Your task to perform on an android device: open the mobile data screen to see how much data has been used Image 0: 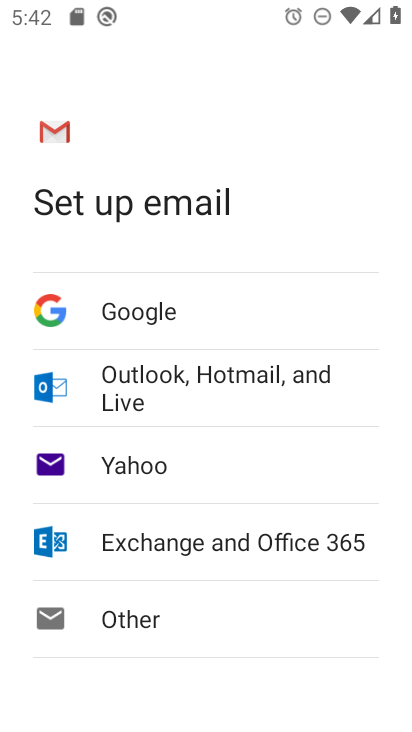
Step 0: press home button
Your task to perform on an android device: open the mobile data screen to see how much data has been used Image 1: 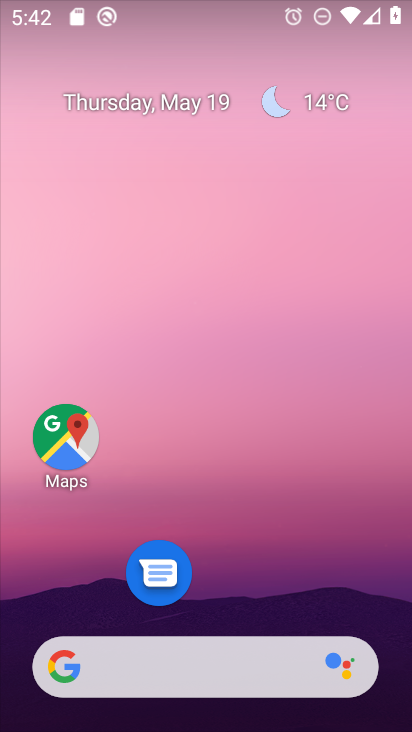
Step 1: click (259, 235)
Your task to perform on an android device: open the mobile data screen to see how much data has been used Image 2: 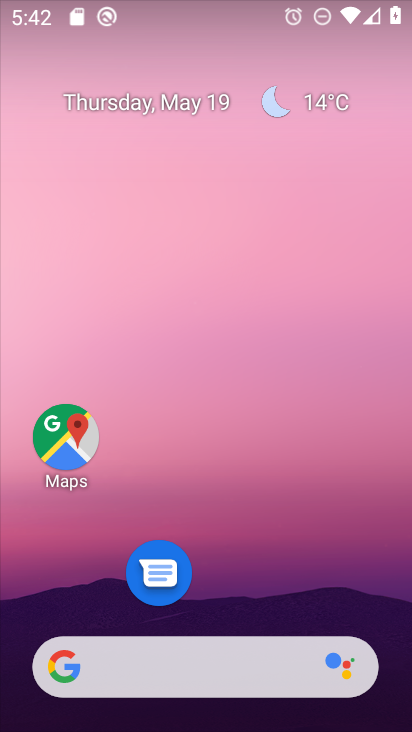
Step 2: drag from (234, 596) to (288, 66)
Your task to perform on an android device: open the mobile data screen to see how much data has been used Image 3: 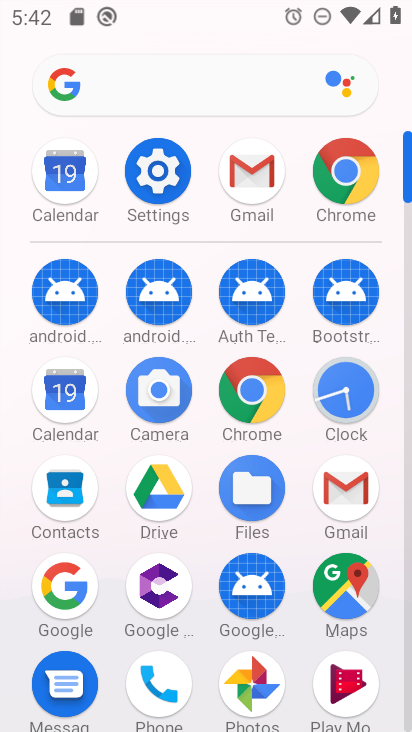
Step 3: click (164, 185)
Your task to perform on an android device: open the mobile data screen to see how much data has been used Image 4: 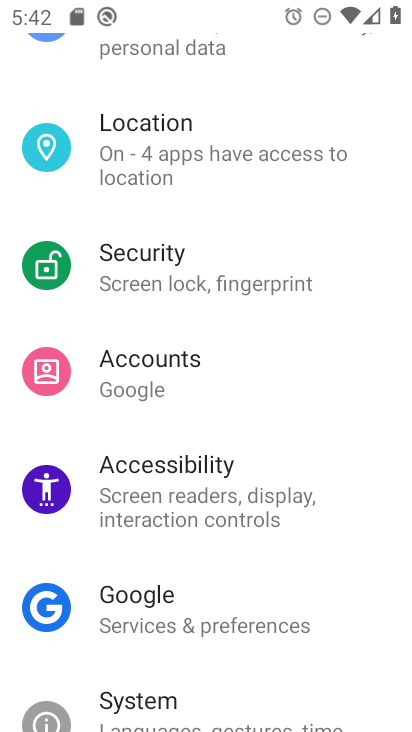
Step 4: drag from (181, 154) to (163, 450)
Your task to perform on an android device: open the mobile data screen to see how much data has been used Image 5: 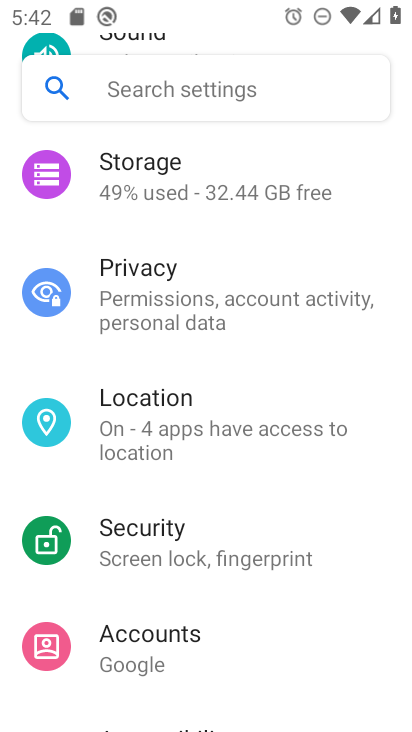
Step 5: drag from (187, 276) to (169, 580)
Your task to perform on an android device: open the mobile data screen to see how much data has been used Image 6: 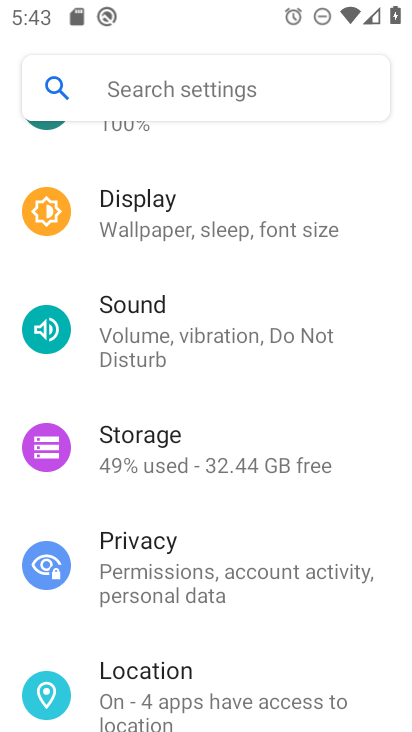
Step 6: drag from (190, 308) to (178, 551)
Your task to perform on an android device: open the mobile data screen to see how much data has been used Image 7: 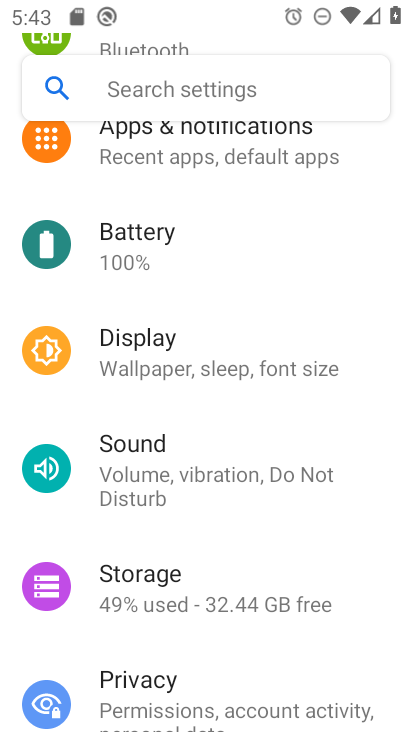
Step 7: drag from (191, 229) to (192, 589)
Your task to perform on an android device: open the mobile data screen to see how much data has been used Image 8: 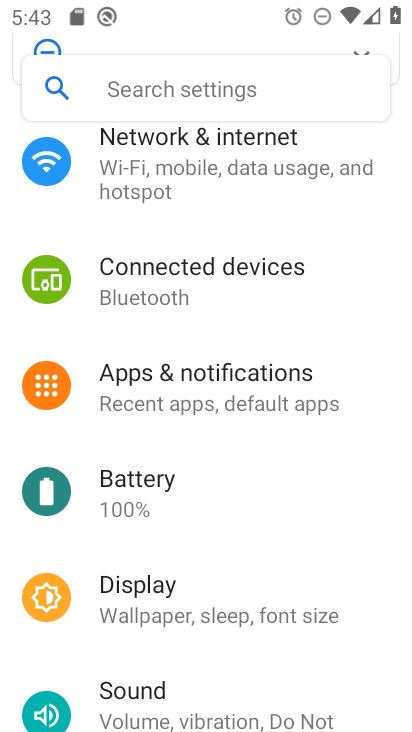
Step 8: click (164, 173)
Your task to perform on an android device: open the mobile data screen to see how much data has been used Image 9: 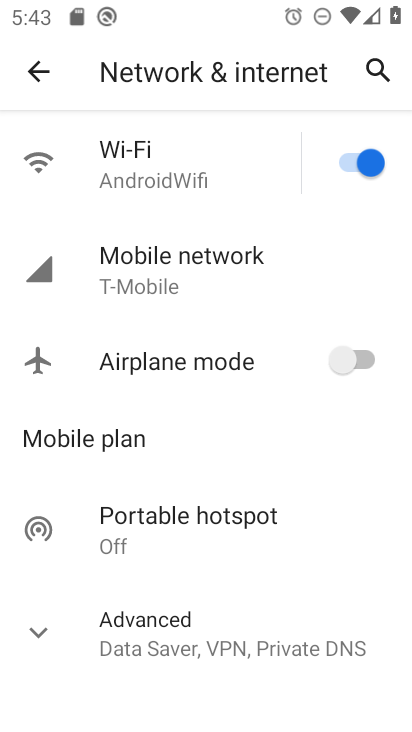
Step 9: click (183, 287)
Your task to perform on an android device: open the mobile data screen to see how much data has been used Image 10: 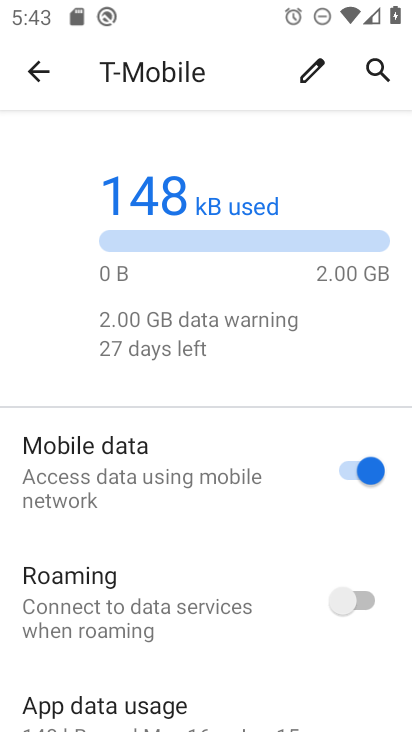
Step 10: task complete